Your task to perform on an android device: Search for vegetarian restaurants on Maps Image 0: 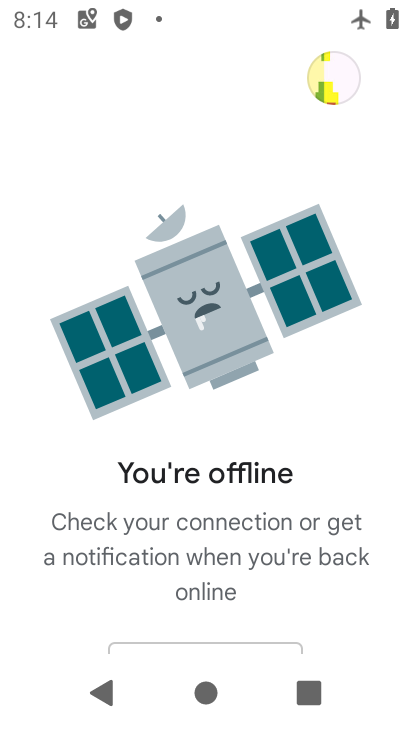
Step 0: press home button
Your task to perform on an android device: Search for vegetarian restaurants on Maps Image 1: 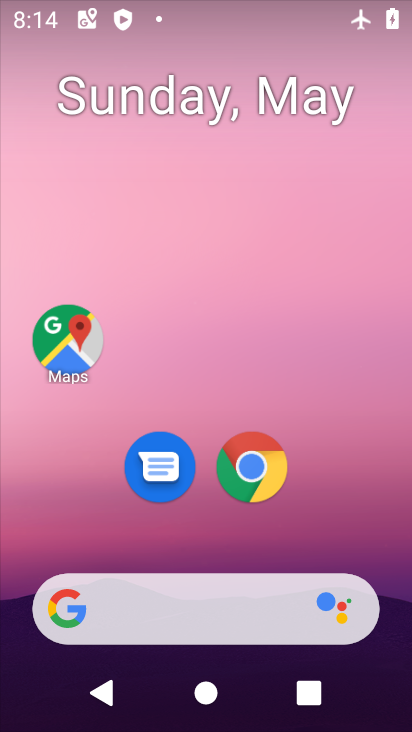
Step 1: click (82, 346)
Your task to perform on an android device: Search for vegetarian restaurants on Maps Image 2: 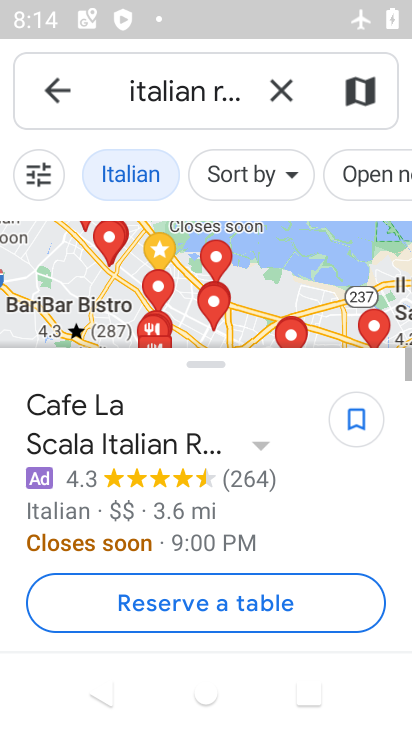
Step 2: click (273, 108)
Your task to perform on an android device: Search for vegetarian restaurants on Maps Image 3: 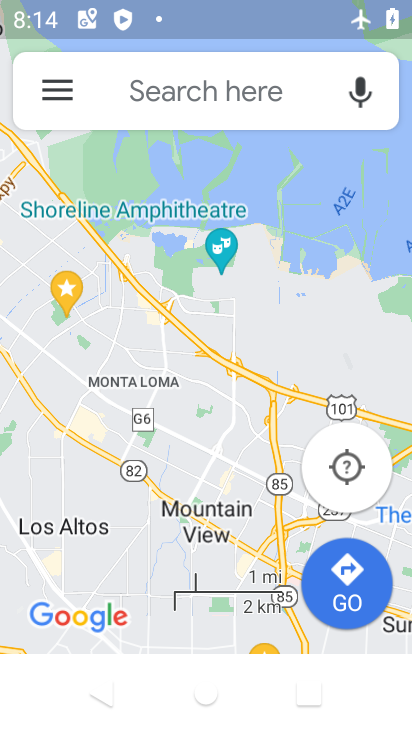
Step 3: click (225, 86)
Your task to perform on an android device: Search for vegetarian restaurants on Maps Image 4: 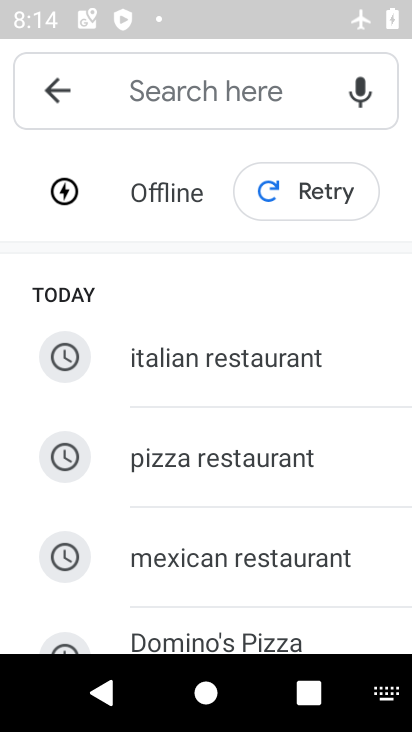
Step 4: drag from (154, 624) to (207, 91)
Your task to perform on an android device: Search for vegetarian restaurants on Maps Image 5: 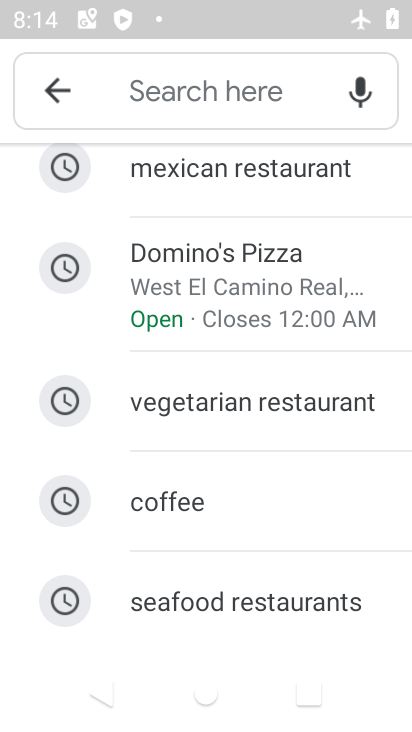
Step 5: click (229, 421)
Your task to perform on an android device: Search for vegetarian restaurants on Maps Image 6: 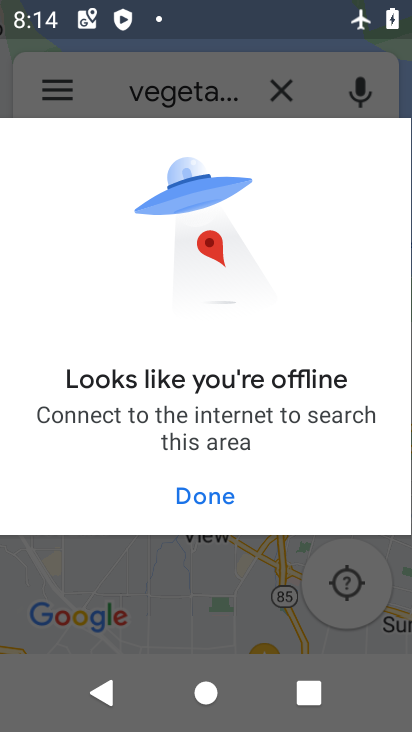
Step 6: drag from (229, 22) to (310, 609)
Your task to perform on an android device: Search for vegetarian restaurants on Maps Image 7: 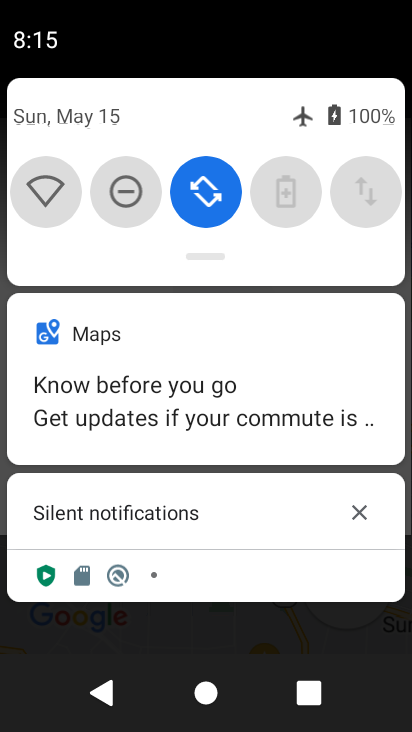
Step 7: drag from (279, 571) to (279, 652)
Your task to perform on an android device: Search for vegetarian restaurants on Maps Image 8: 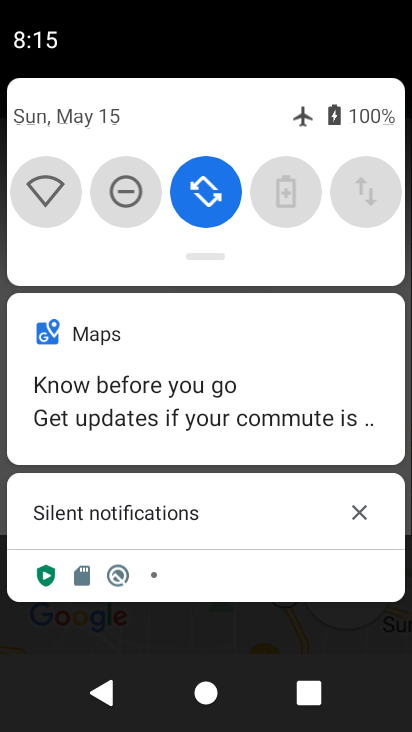
Step 8: drag from (208, 109) to (230, 649)
Your task to perform on an android device: Search for vegetarian restaurants on Maps Image 9: 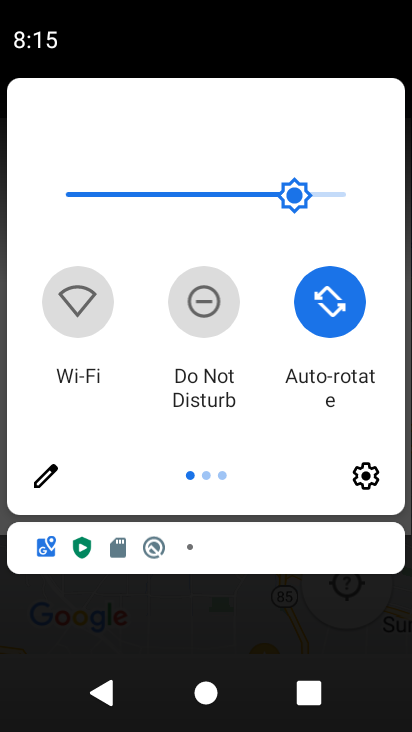
Step 9: drag from (352, 434) to (43, 436)
Your task to perform on an android device: Search for vegetarian restaurants on Maps Image 10: 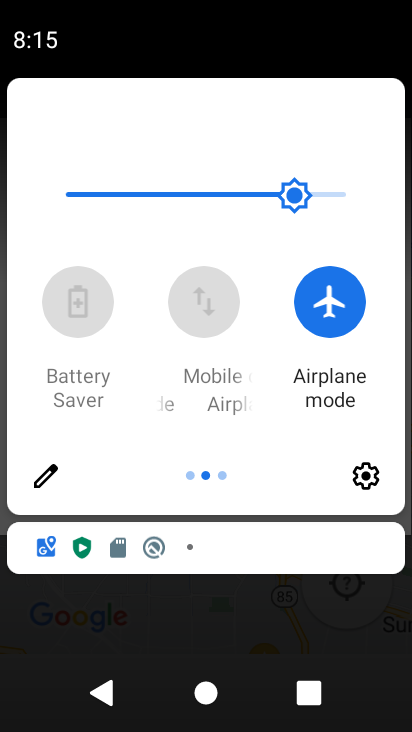
Step 10: drag from (374, 428) to (64, 411)
Your task to perform on an android device: Search for vegetarian restaurants on Maps Image 11: 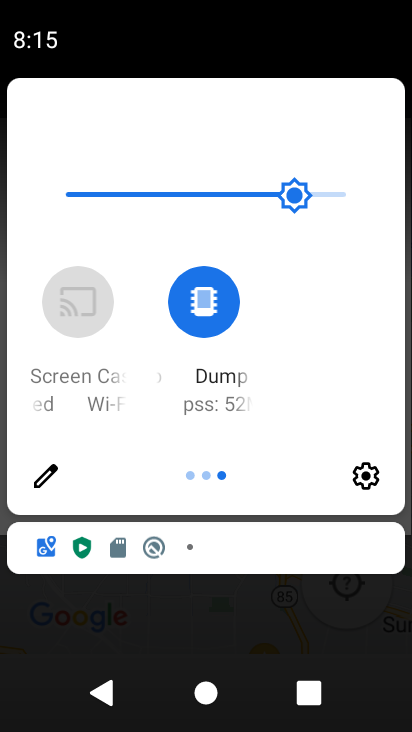
Step 11: drag from (382, 357) to (408, 435)
Your task to perform on an android device: Search for vegetarian restaurants on Maps Image 12: 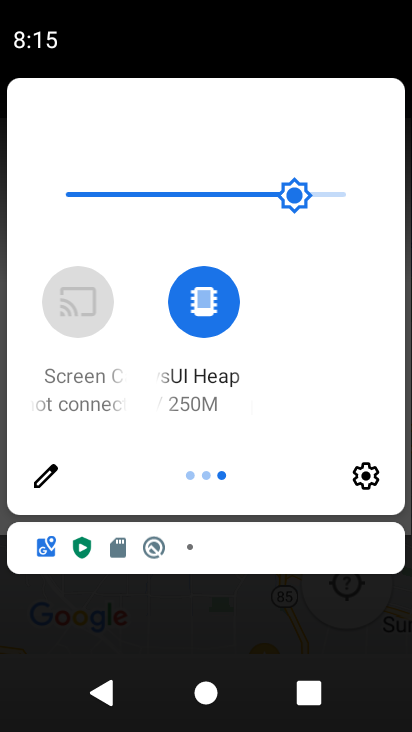
Step 12: drag from (269, 459) to (394, 456)
Your task to perform on an android device: Search for vegetarian restaurants on Maps Image 13: 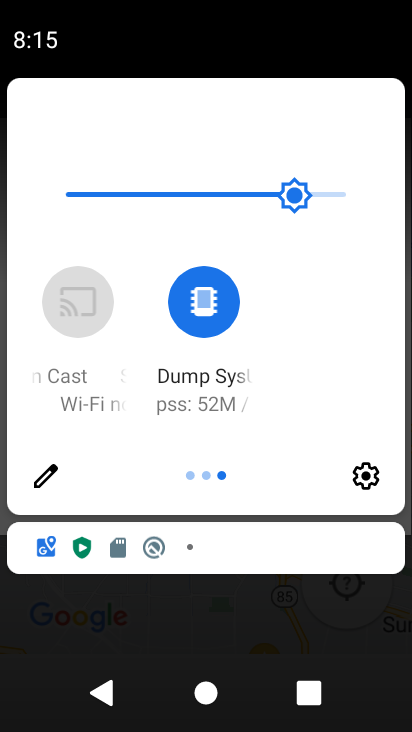
Step 13: click (31, 439)
Your task to perform on an android device: Search for vegetarian restaurants on Maps Image 14: 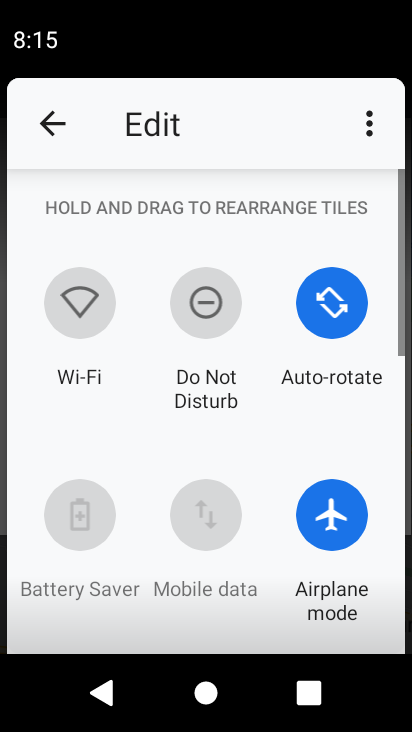
Step 14: click (208, 472)
Your task to perform on an android device: Search for vegetarian restaurants on Maps Image 15: 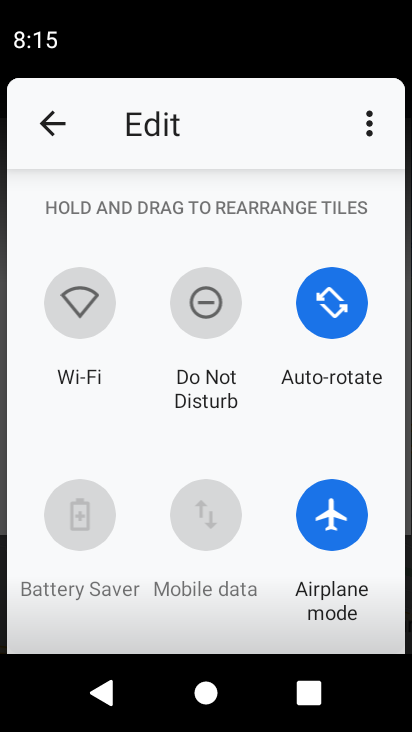
Step 15: click (328, 505)
Your task to perform on an android device: Search for vegetarian restaurants on Maps Image 16: 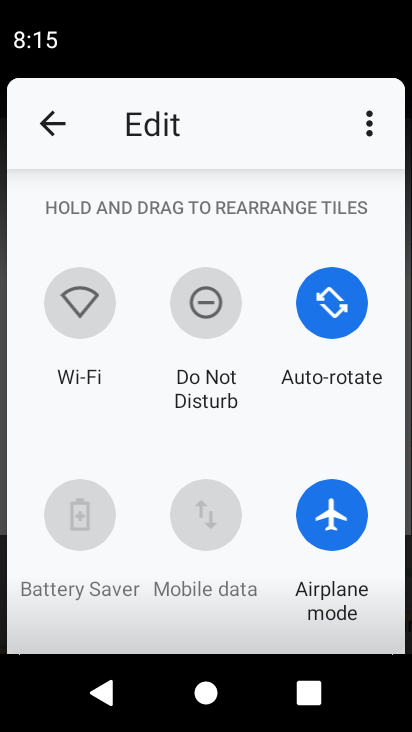
Step 16: click (343, 523)
Your task to perform on an android device: Search for vegetarian restaurants on Maps Image 17: 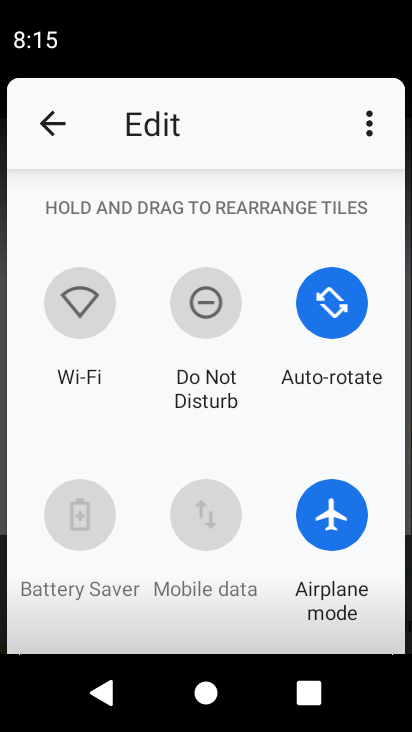
Step 17: click (344, 524)
Your task to perform on an android device: Search for vegetarian restaurants on Maps Image 18: 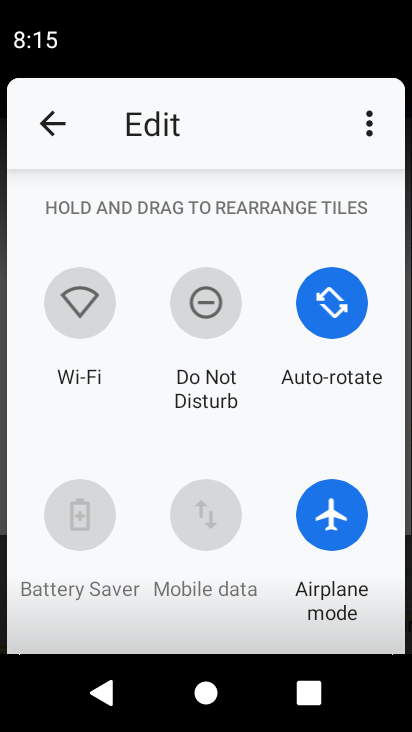
Step 18: click (344, 524)
Your task to perform on an android device: Search for vegetarian restaurants on Maps Image 19: 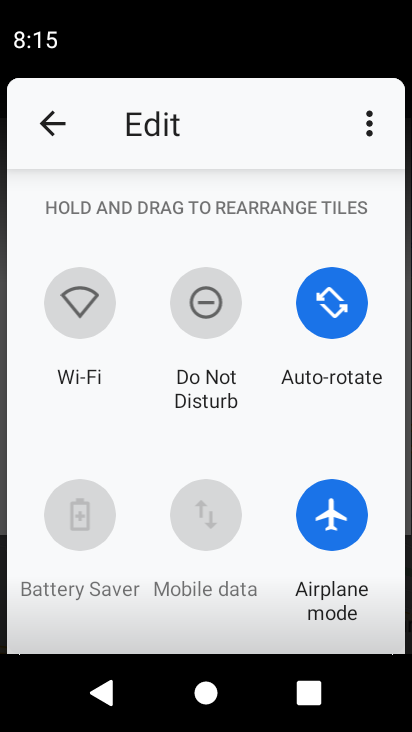
Step 19: click (344, 524)
Your task to perform on an android device: Search for vegetarian restaurants on Maps Image 20: 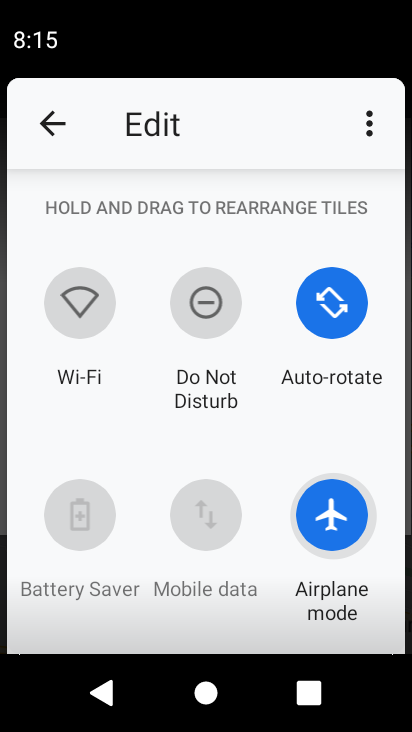
Step 20: click (344, 524)
Your task to perform on an android device: Search for vegetarian restaurants on Maps Image 21: 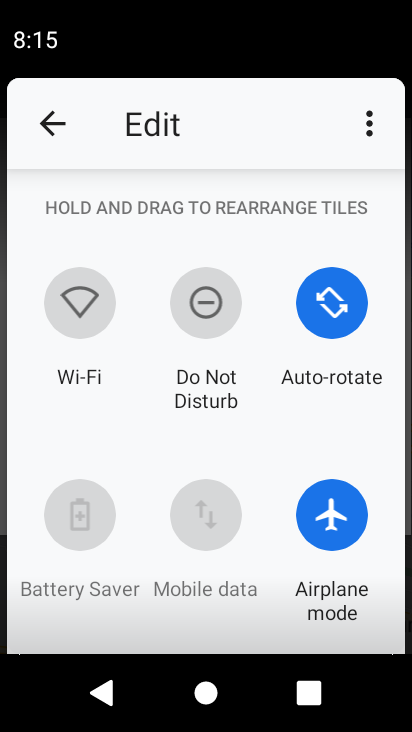
Step 21: click (345, 500)
Your task to perform on an android device: Search for vegetarian restaurants on Maps Image 22: 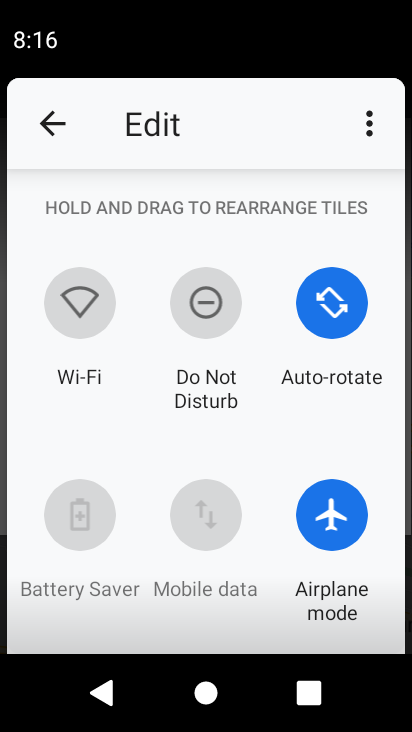
Step 22: click (341, 523)
Your task to perform on an android device: Search for vegetarian restaurants on Maps Image 23: 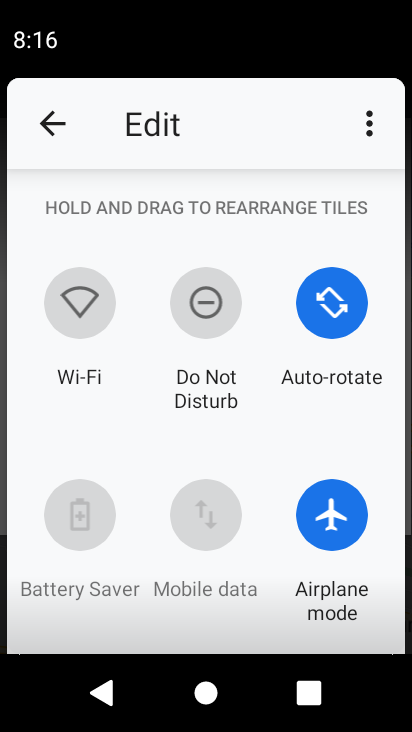
Step 23: click (341, 523)
Your task to perform on an android device: Search for vegetarian restaurants on Maps Image 24: 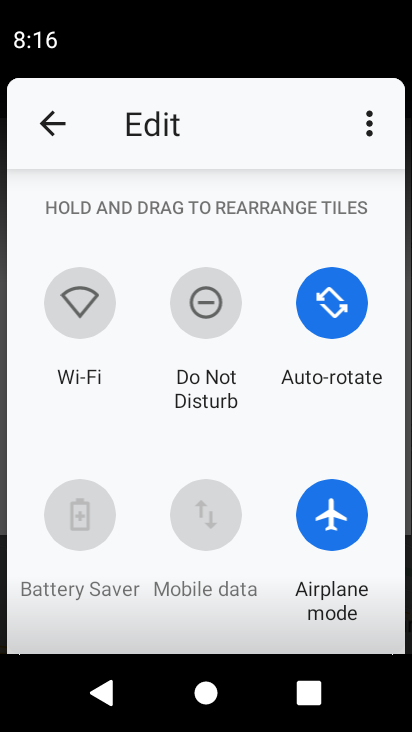
Step 24: click (341, 523)
Your task to perform on an android device: Search for vegetarian restaurants on Maps Image 25: 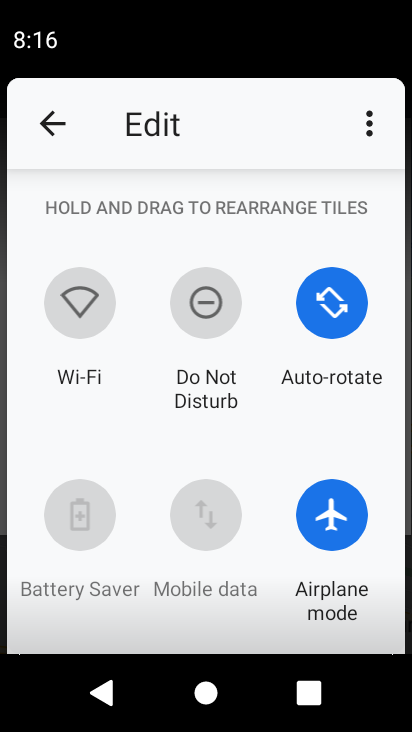
Step 25: click (341, 523)
Your task to perform on an android device: Search for vegetarian restaurants on Maps Image 26: 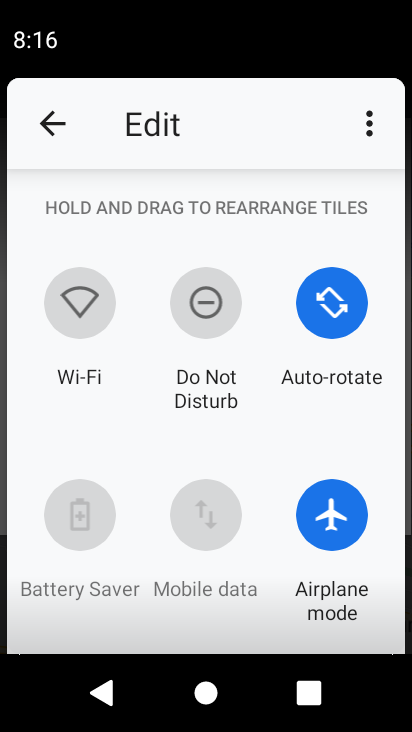
Step 26: click (341, 523)
Your task to perform on an android device: Search for vegetarian restaurants on Maps Image 27: 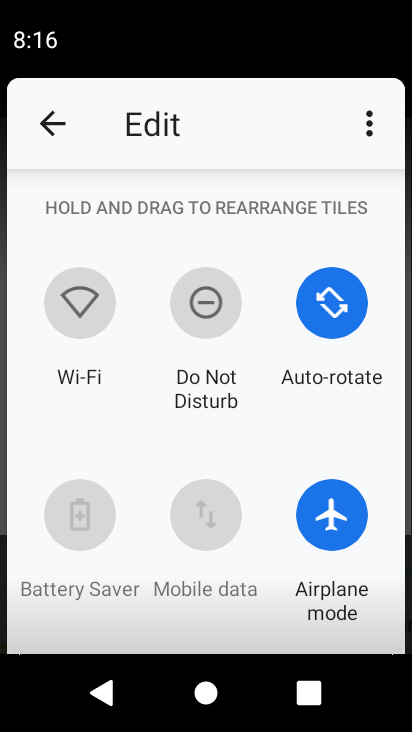
Step 27: click (341, 523)
Your task to perform on an android device: Search for vegetarian restaurants on Maps Image 28: 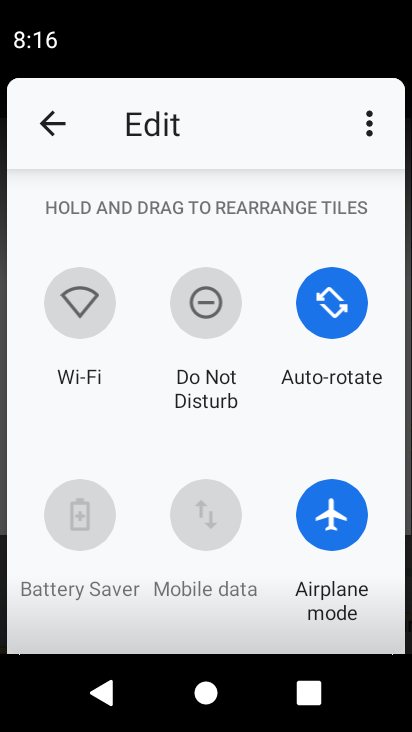
Step 28: click (318, 527)
Your task to perform on an android device: Search for vegetarian restaurants on Maps Image 29: 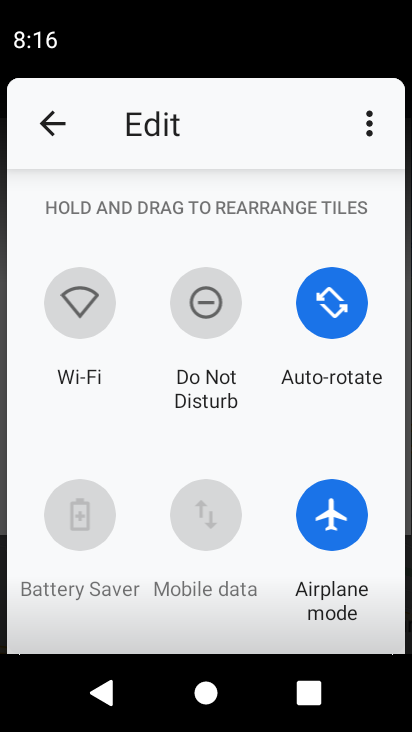
Step 29: click (318, 527)
Your task to perform on an android device: Search for vegetarian restaurants on Maps Image 30: 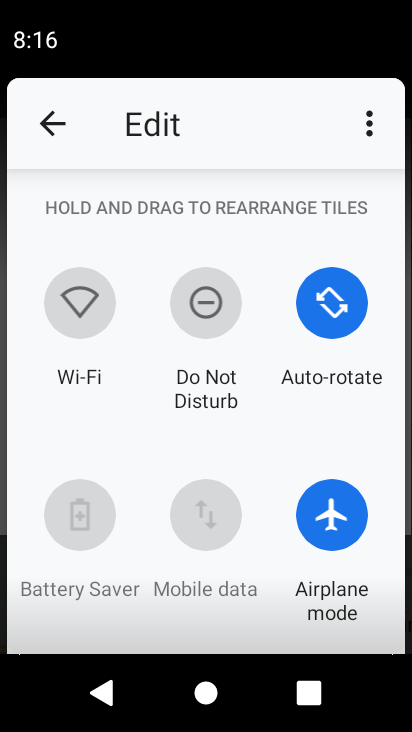
Step 30: click (318, 527)
Your task to perform on an android device: Search for vegetarian restaurants on Maps Image 31: 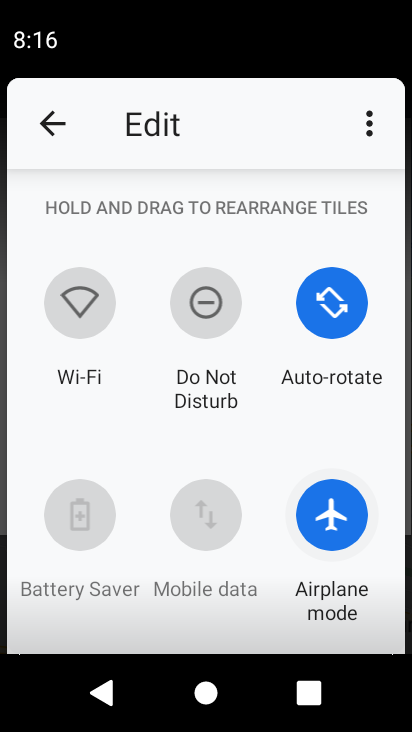
Step 31: click (318, 527)
Your task to perform on an android device: Search for vegetarian restaurants on Maps Image 32: 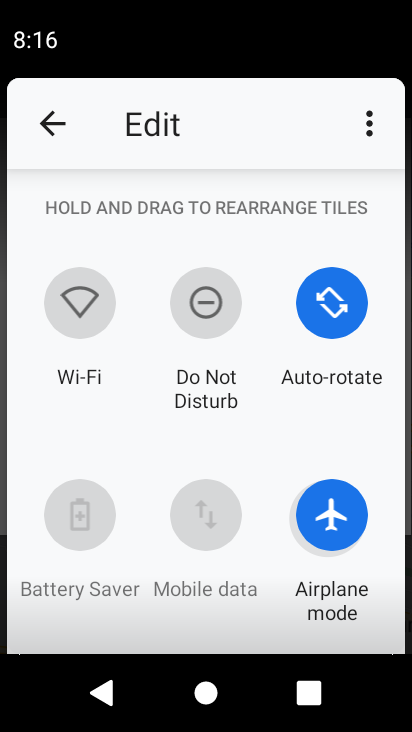
Step 32: click (318, 527)
Your task to perform on an android device: Search for vegetarian restaurants on Maps Image 33: 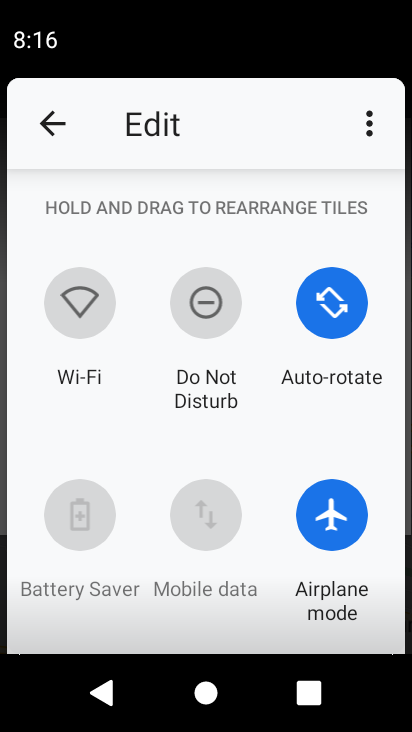
Step 33: click (318, 527)
Your task to perform on an android device: Search for vegetarian restaurants on Maps Image 34: 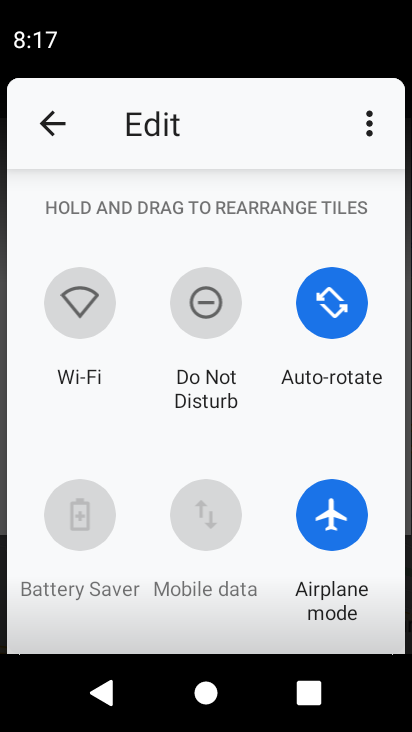
Step 34: task complete